Your task to perform on an android device: delete location history Image 0: 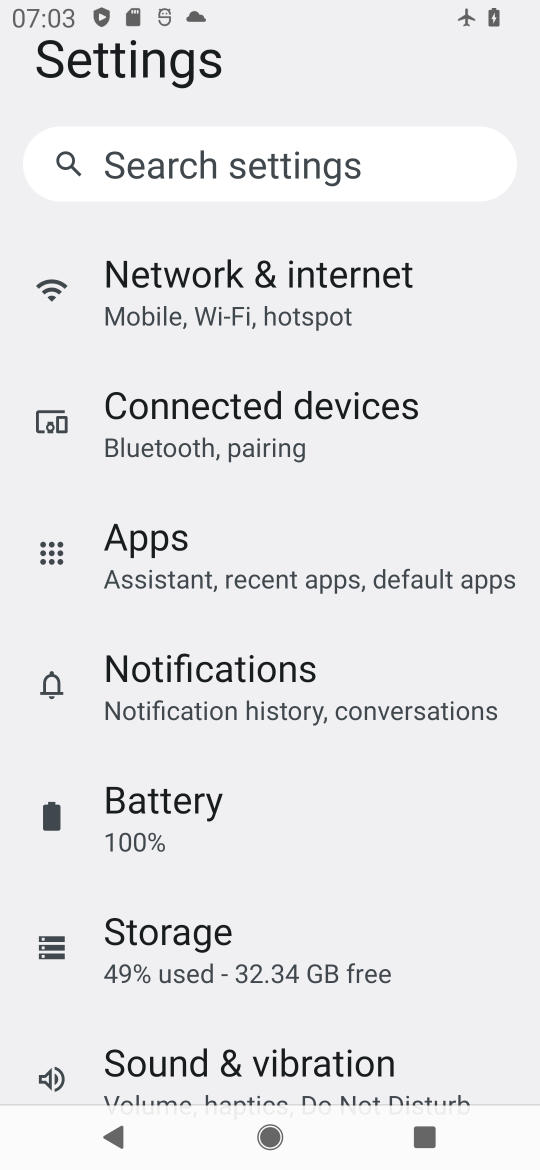
Step 0: press home button
Your task to perform on an android device: delete location history Image 1: 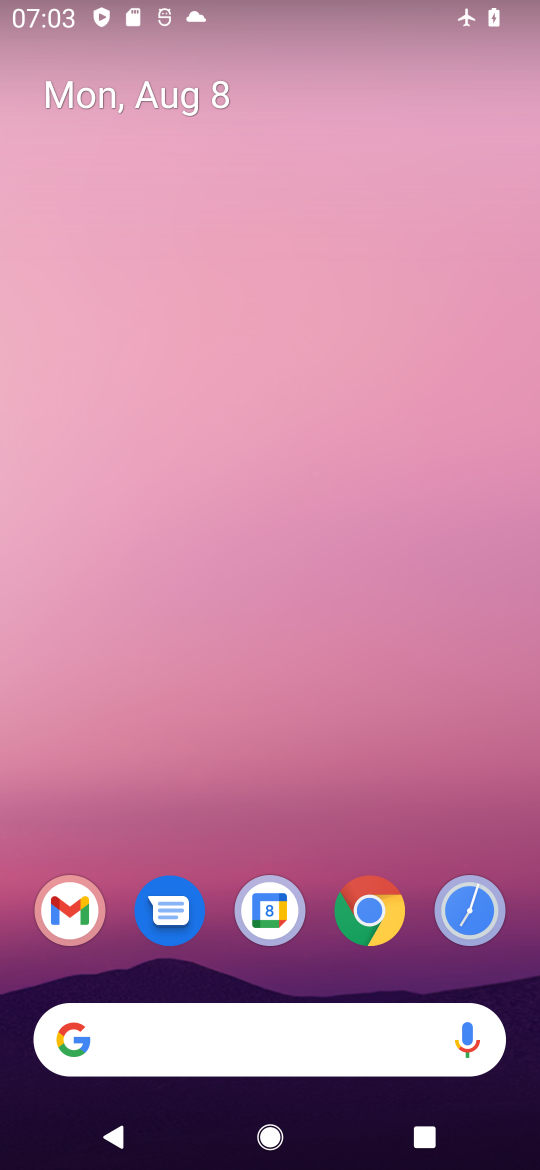
Step 1: drag from (283, 1015) to (350, 185)
Your task to perform on an android device: delete location history Image 2: 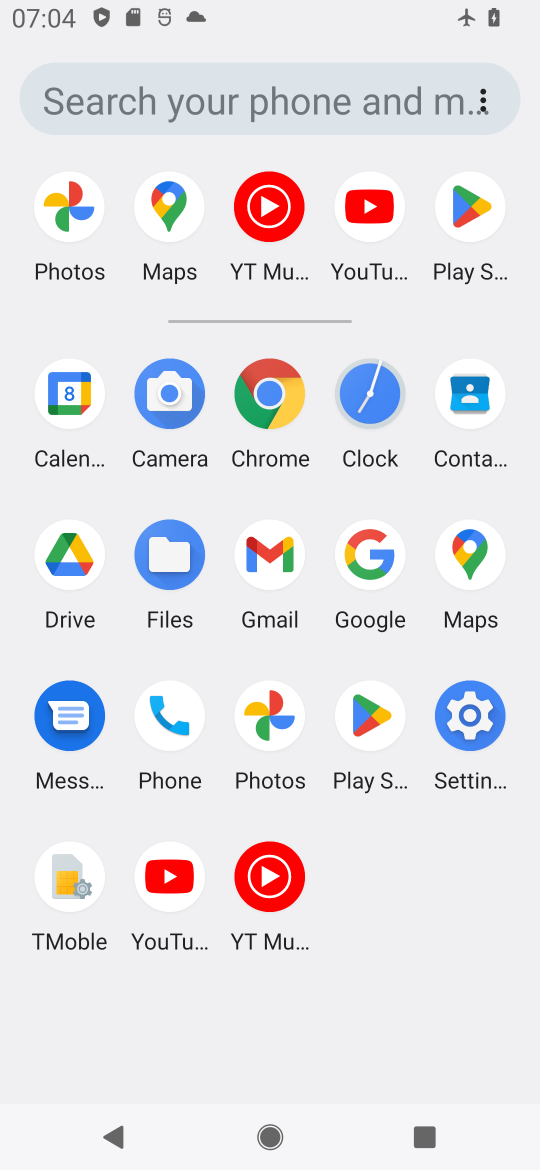
Step 2: click (170, 201)
Your task to perform on an android device: delete location history Image 3: 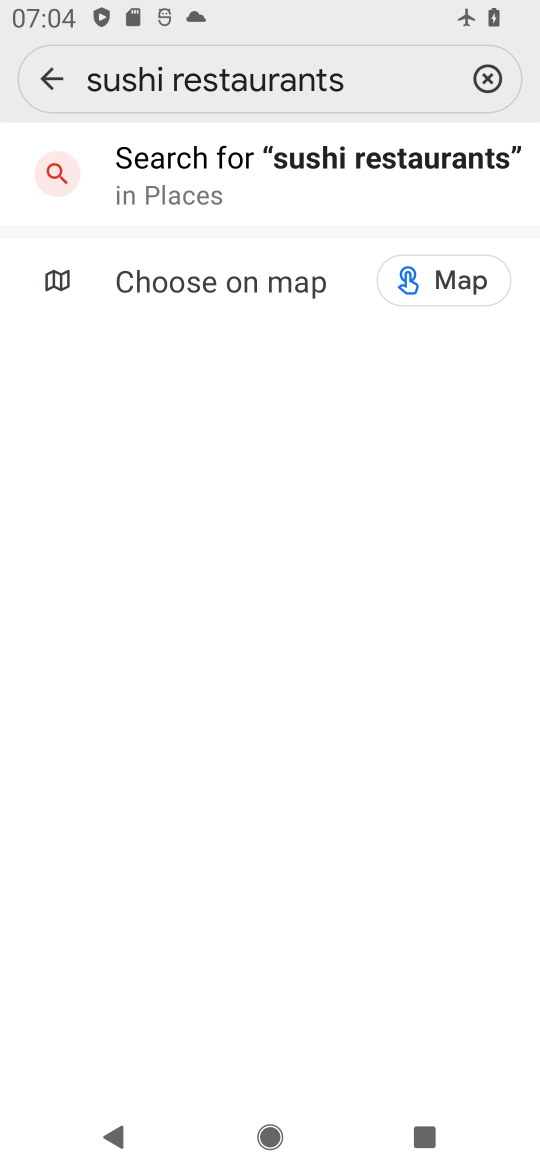
Step 3: press back button
Your task to perform on an android device: delete location history Image 4: 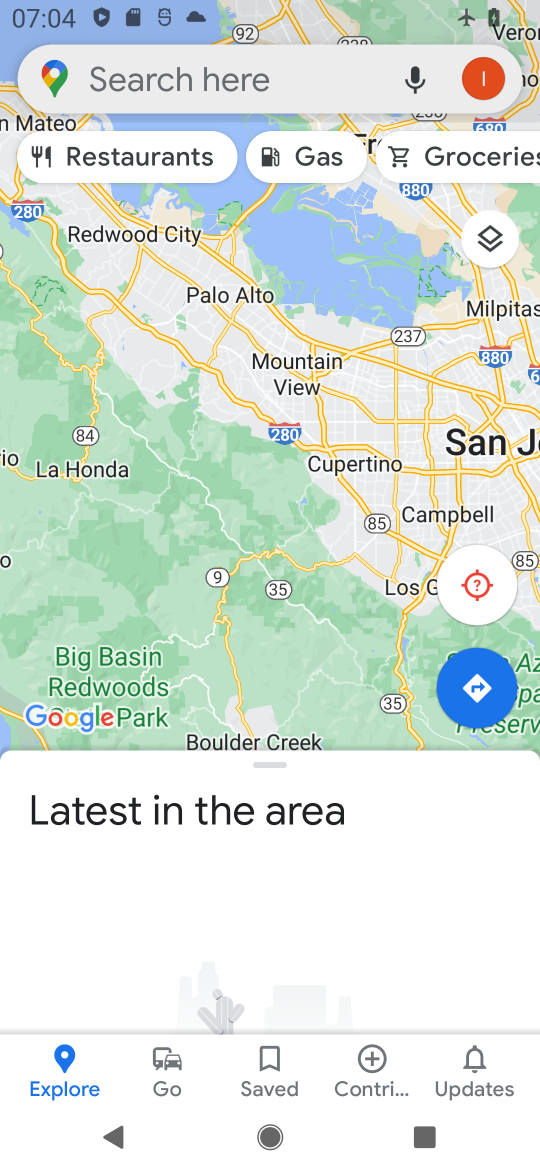
Step 4: click (489, 85)
Your task to perform on an android device: delete location history Image 5: 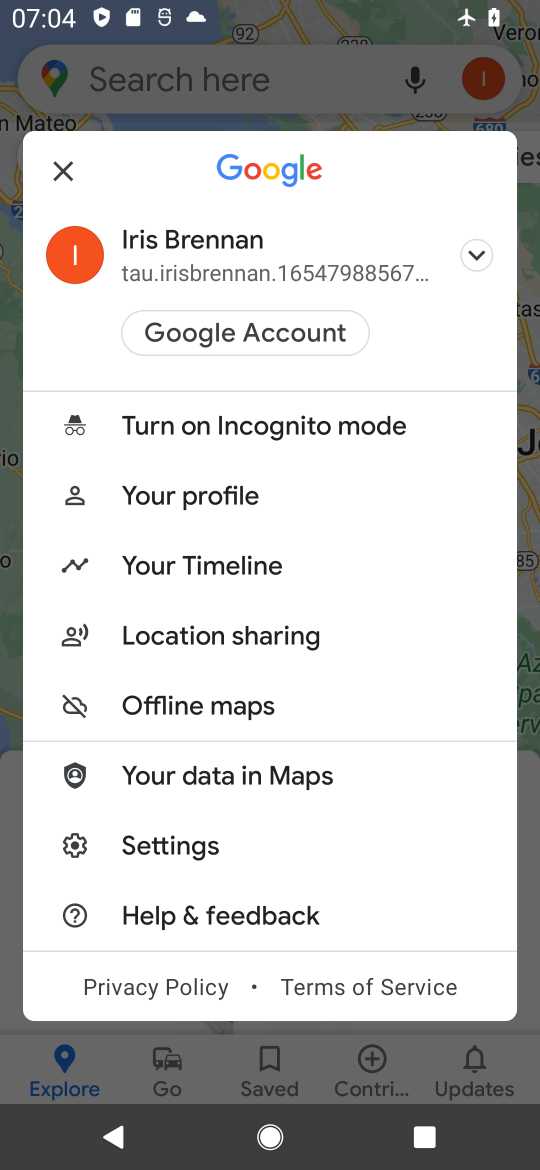
Step 5: click (190, 845)
Your task to perform on an android device: delete location history Image 6: 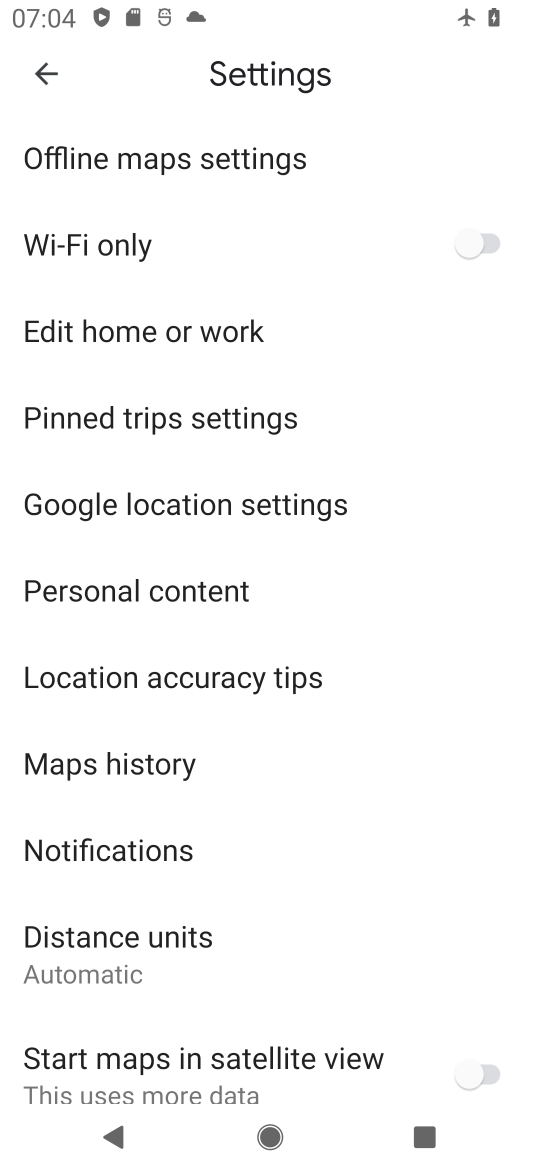
Step 6: click (166, 592)
Your task to perform on an android device: delete location history Image 7: 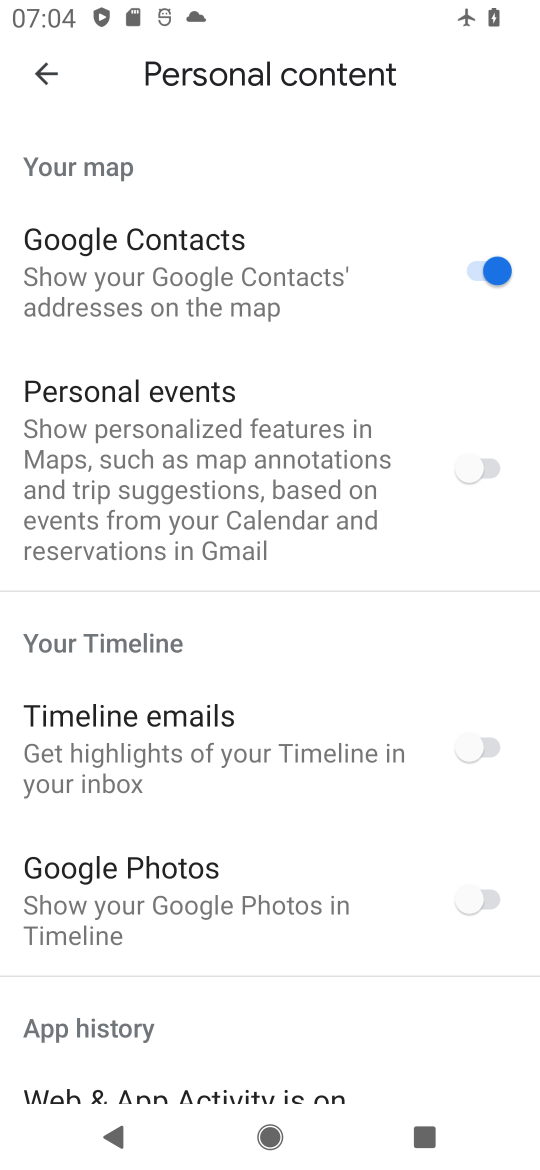
Step 7: drag from (141, 792) to (192, 677)
Your task to perform on an android device: delete location history Image 8: 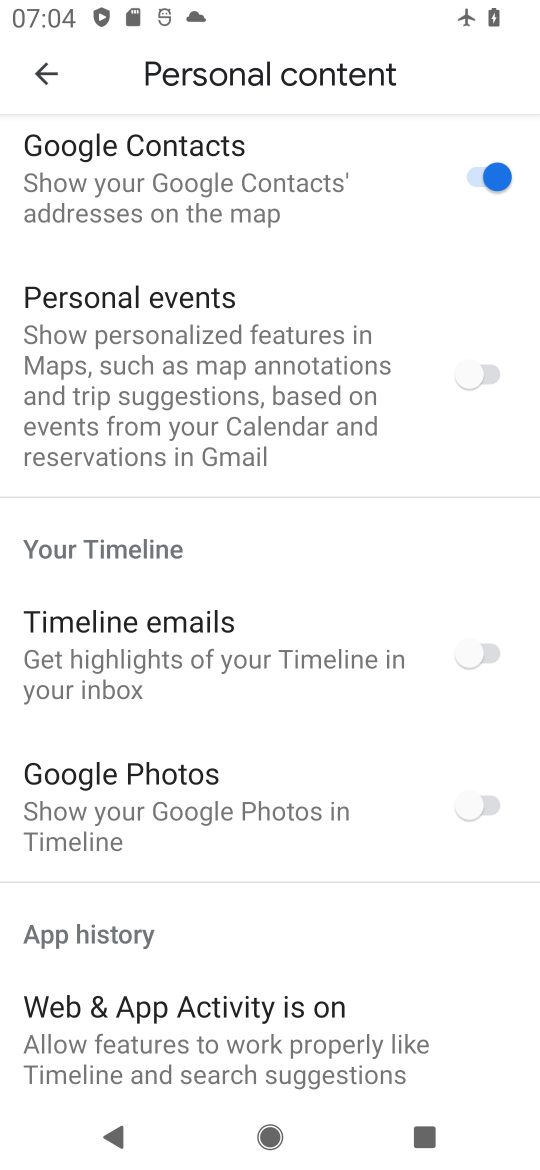
Step 8: drag from (157, 893) to (299, 703)
Your task to perform on an android device: delete location history Image 9: 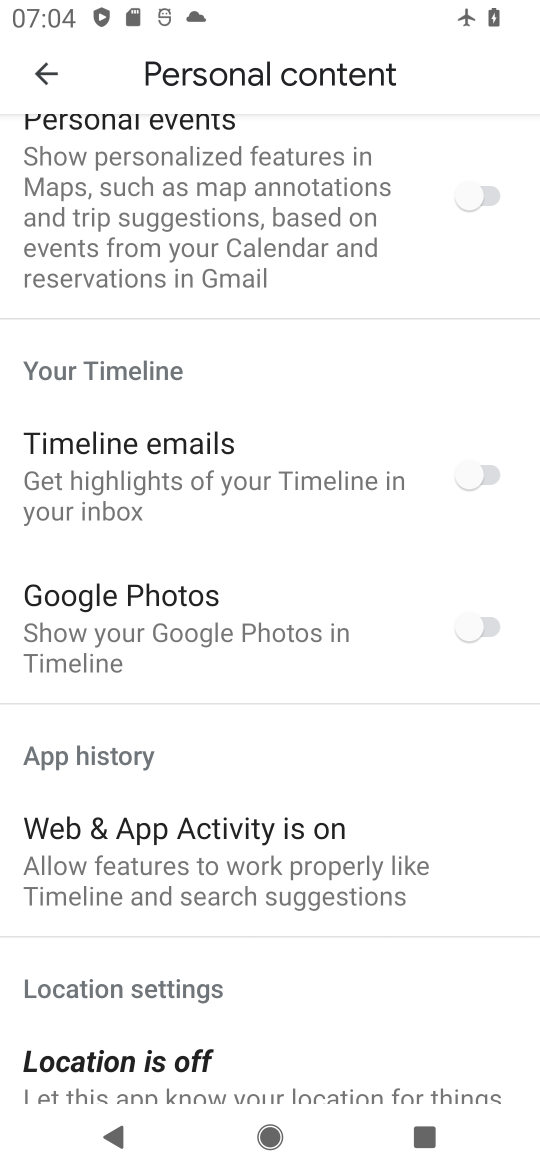
Step 9: drag from (158, 972) to (324, 759)
Your task to perform on an android device: delete location history Image 10: 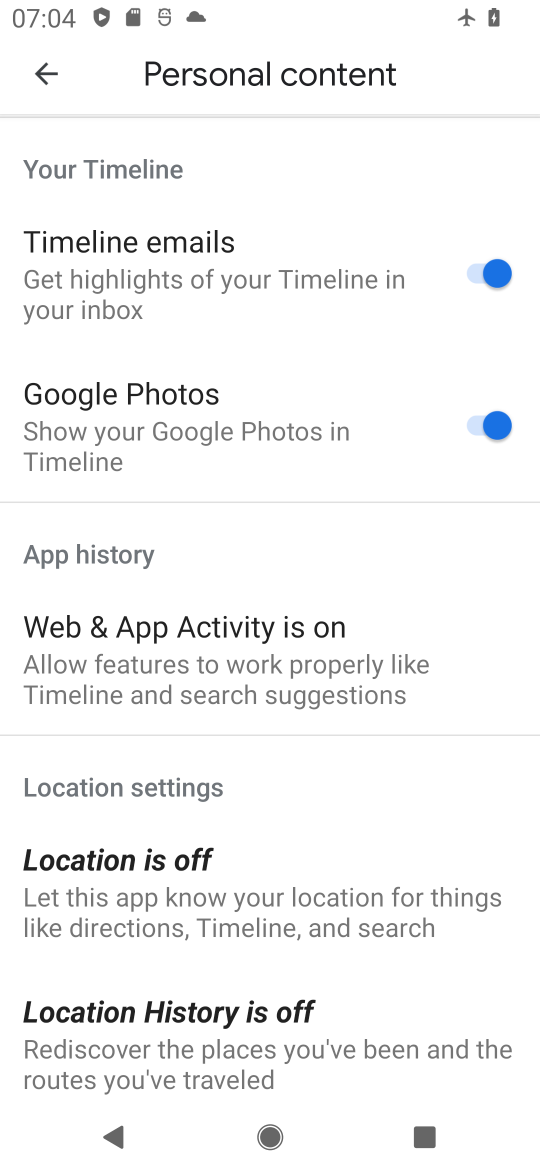
Step 10: drag from (173, 931) to (331, 727)
Your task to perform on an android device: delete location history Image 11: 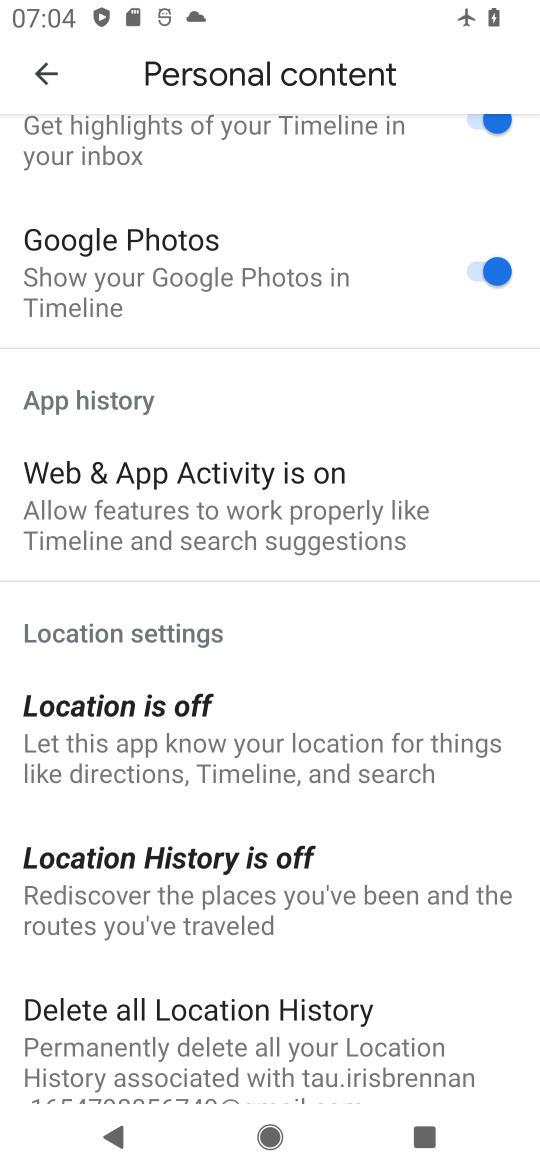
Step 11: drag from (200, 986) to (381, 786)
Your task to perform on an android device: delete location history Image 12: 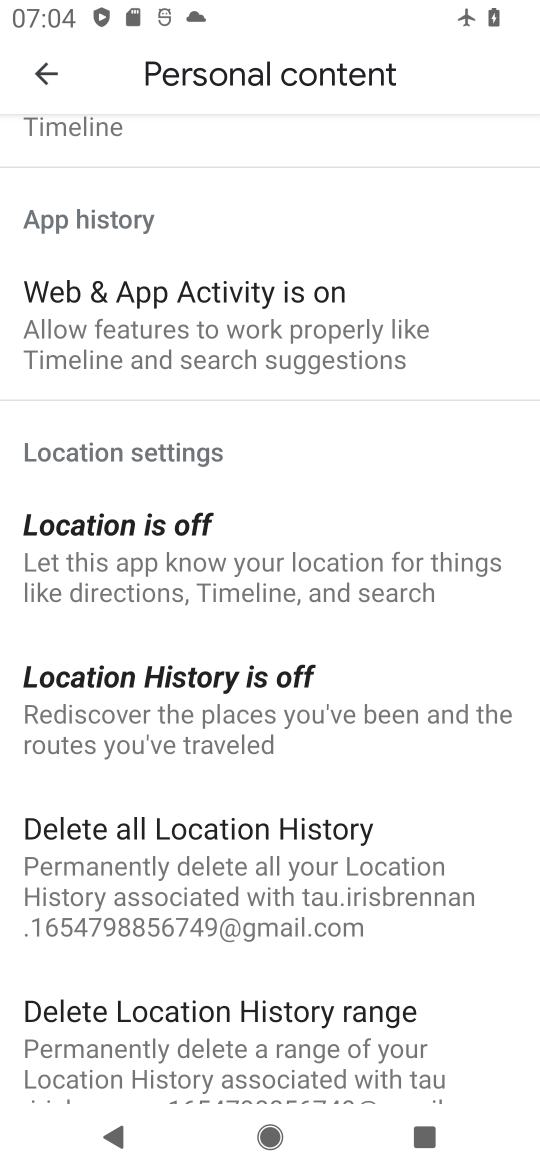
Step 12: click (305, 828)
Your task to perform on an android device: delete location history Image 13: 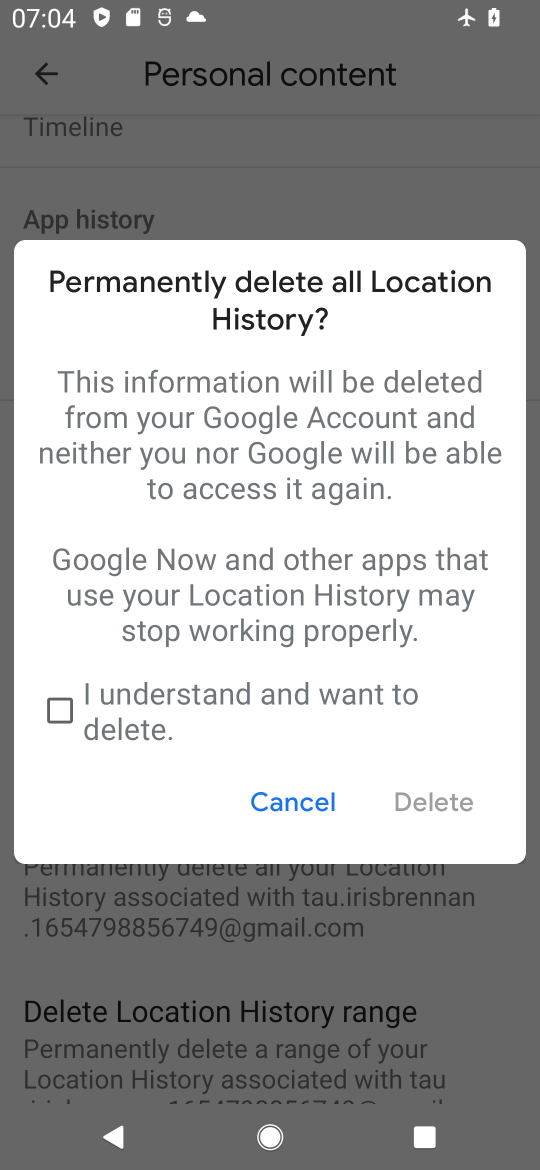
Step 13: click (54, 711)
Your task to perform on an android device: delete location history Image 14: 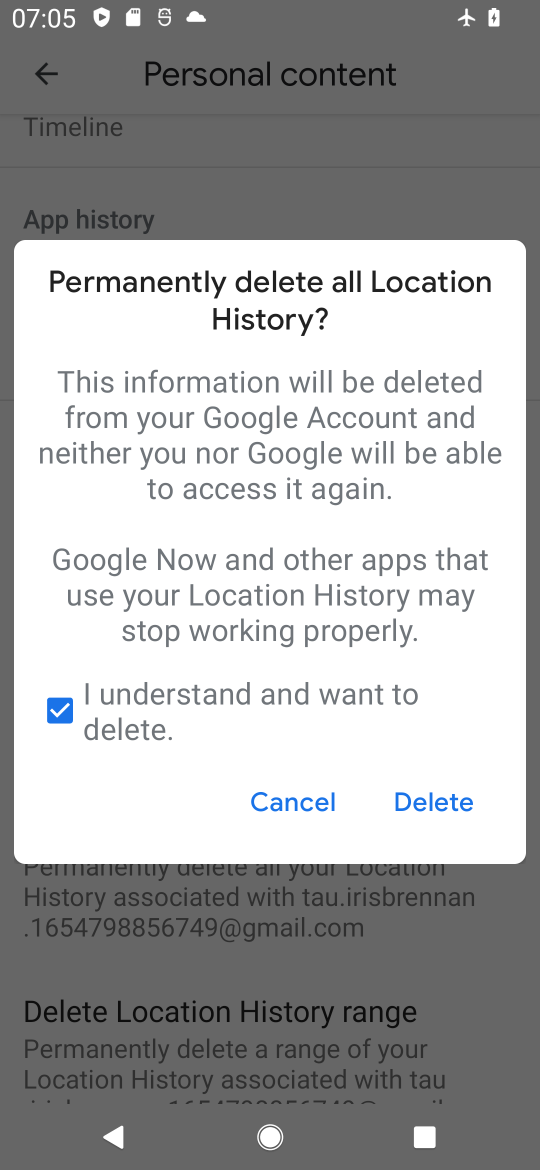
Step 14: click (444, 797)
Your task to perform on an android device: delete location history Image 15: 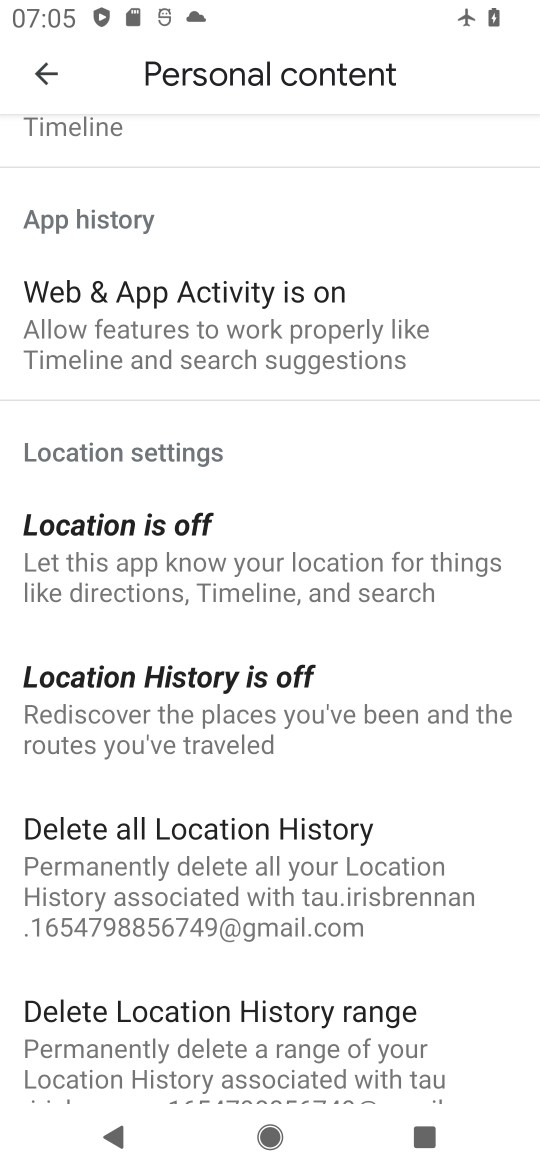
Step 15: task complete